Your task to perform on an android device: Set the phone to "Do not disturb". Image 0: 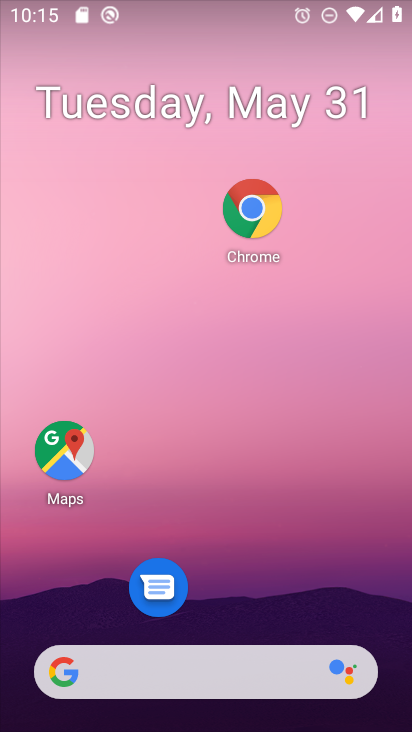
Step 0: press home button
Your task to perform on an android device: Set the phone to "Do not disturb". Image 1: 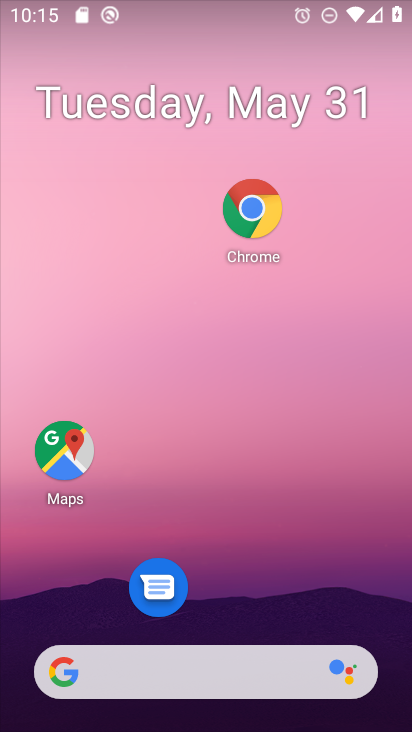
Step 1: task complete